Your task to perform on an android device: turn off notifications in google photos Image 0: 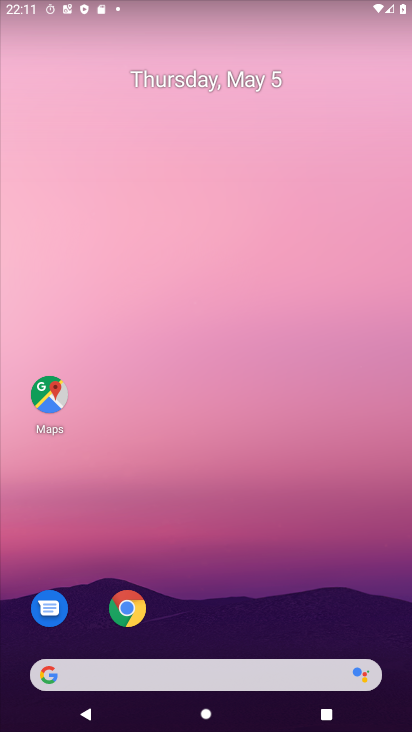
Step 0: drag from (306, 676) to (253, 33)
Your task to perform on an android device: turn off notifications in google photos Image 1: 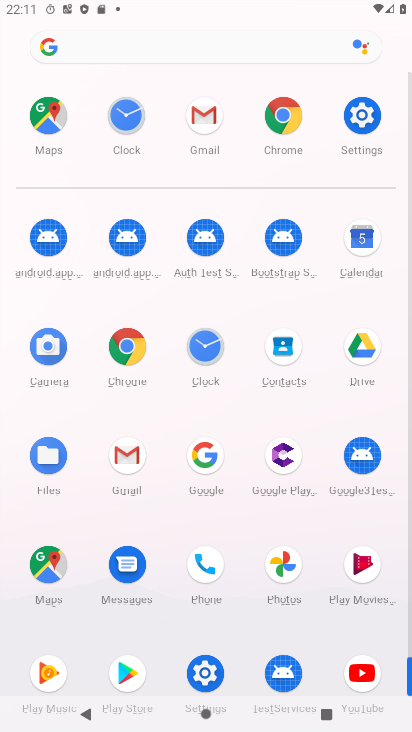
Step 1: click (287, 576)
Your task to perform on an android device: turn off notifications in google photos Image 2: 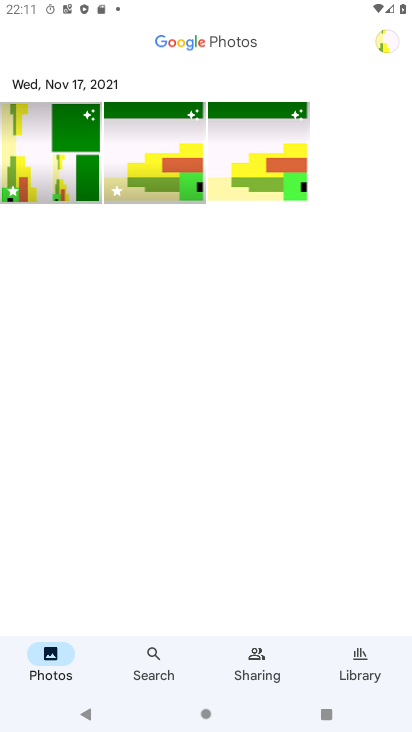
Step 2: click (380, 46)
Your task to perform on an android device: turn off notifications in google photos Image 3: 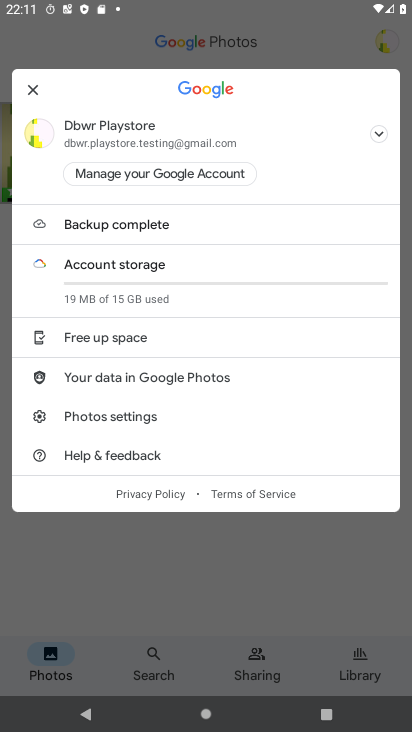
Step 3: click (213, 576)
Your task to perform on an android device: turn off notifications in google photos Image 4: 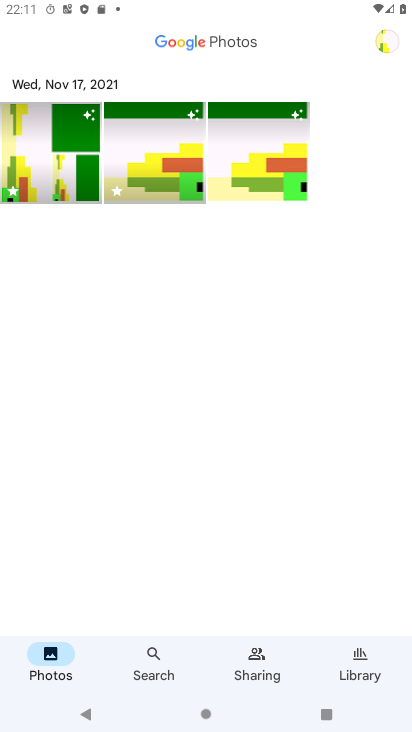
Step 4: click (387, 31)
Your task to perform on an android device: turn off notifications in google photos Image 5: 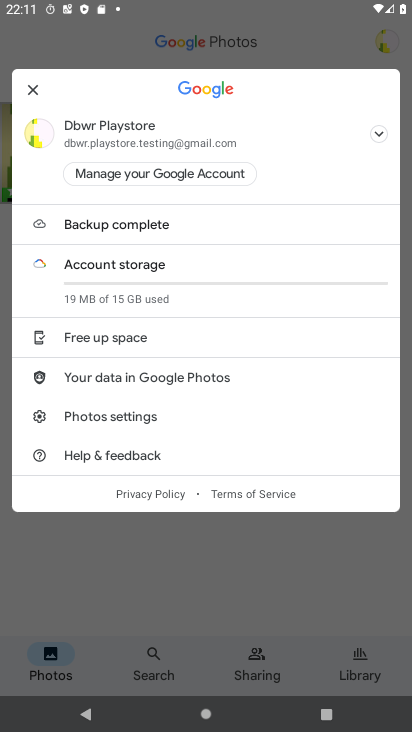
Step 5: click (108, 411)
Your task to perform on an android device: turn off notifications in google photos Image 6: 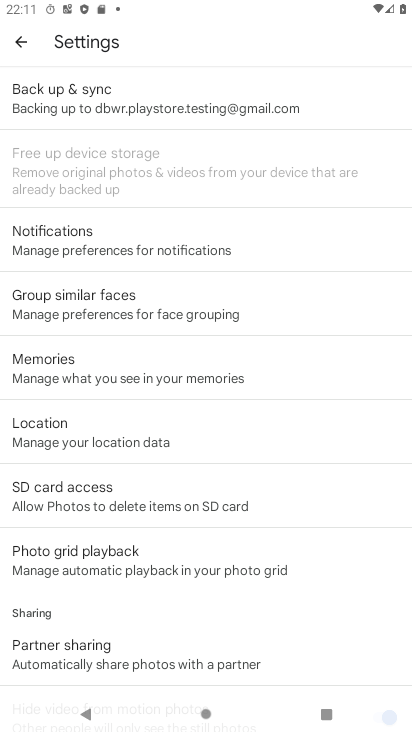
Step 6: click (96, 243)
Your task to perform on an android device: turn off notifications in google photos Image 7: 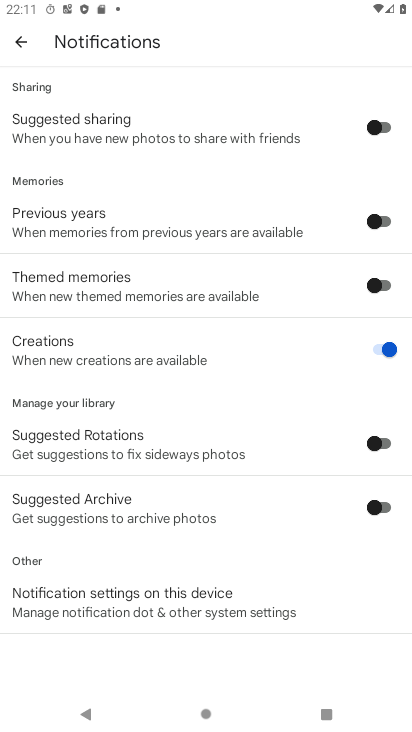
Step 7: click (205, 597)
Your task to perform on an android device: turn off notifications in google photos Image 8: 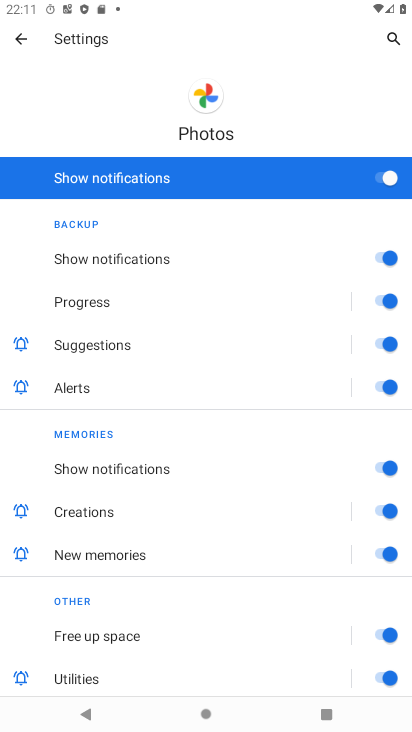
Step 8: click (379, 178)
Your task to perform on an android device: turn off notifications in google photos Image 9: 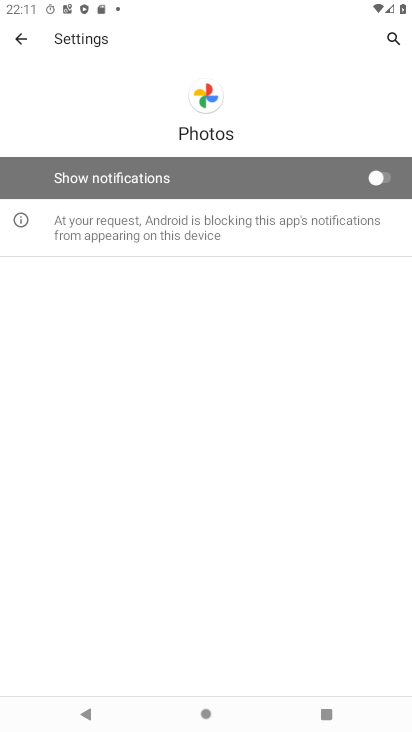
Step 9: task complete